Your task to perform on an android device: Go to Google maps Image 0: 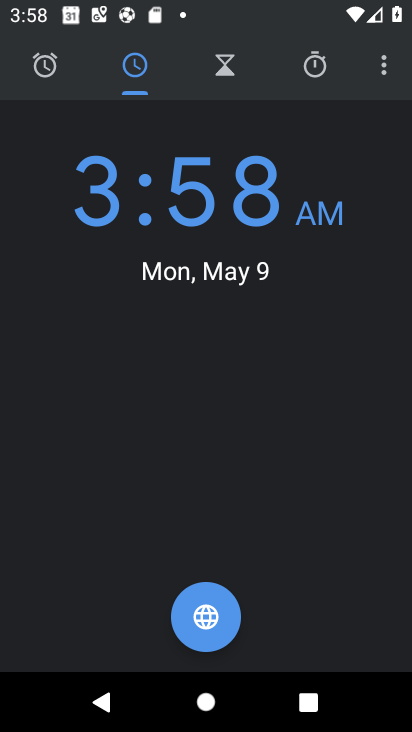
Step 0: drag from (311, 565) to (396, 513)
Your task to perform on an android device: Go to Google maps Image 1: 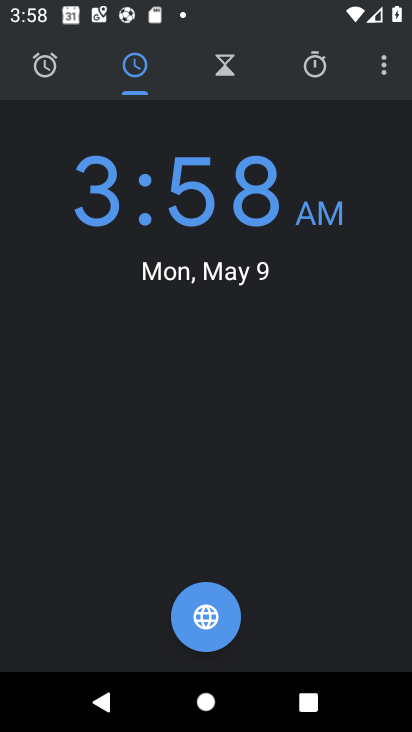
Step 1: press home button
Your task to perform on an android device: Go to Google maps Image 2: 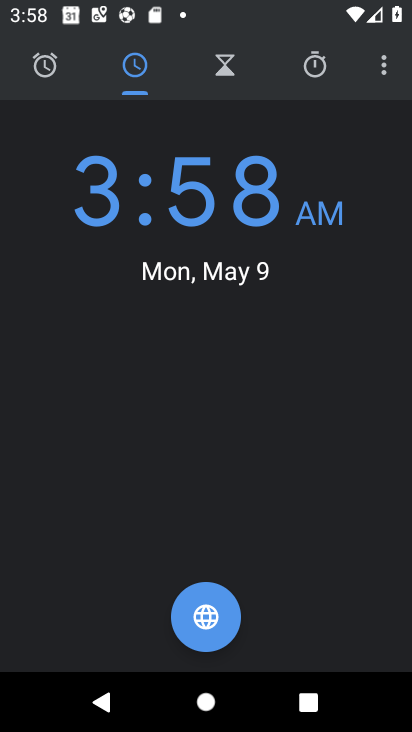
Step 2: click (396, 513)
Your task to perform on an android device: Go to Google maps Image 3: 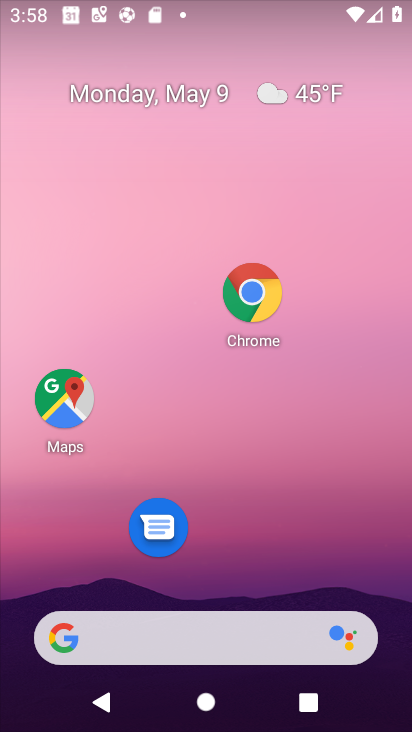
Step 3: click (89, 412)
Your task to perform on an android device: Go to Google maps Image 4: 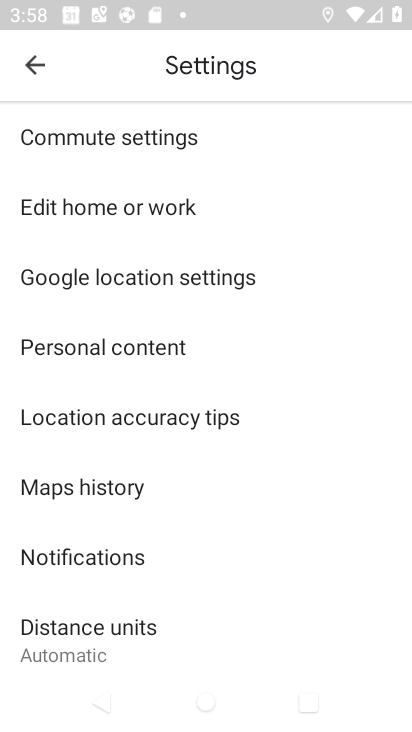
Step 4: press home button
Your task to perform on an android device: Go to Google maps Image 5: 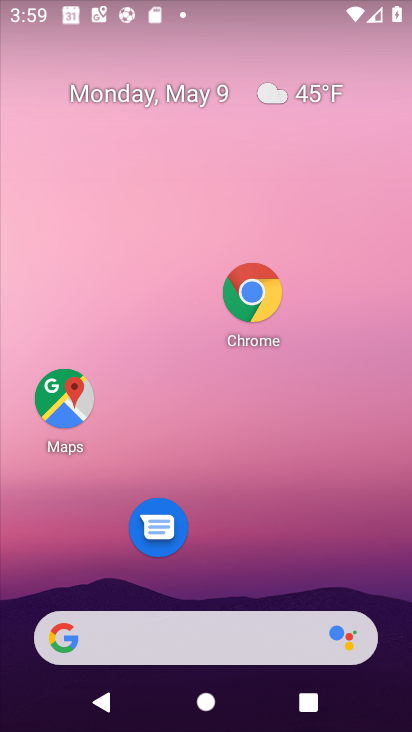
Step 5: click (51, 419)
Your task to perform on an android device: Go to Google maps Image 6: 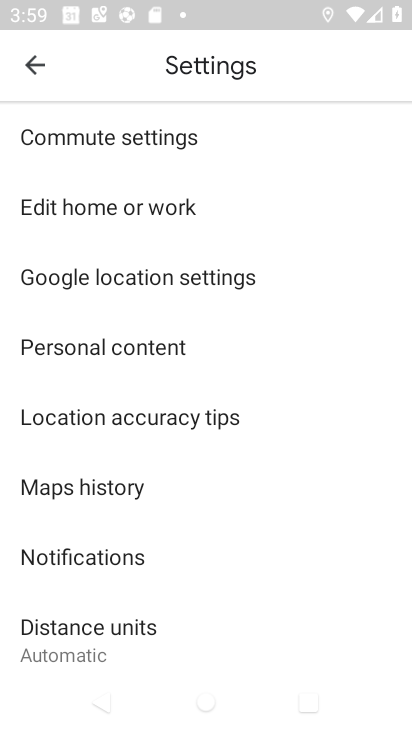
Step 6: press home button
Your task to perform on an android device: Go to Google maps Image 7: 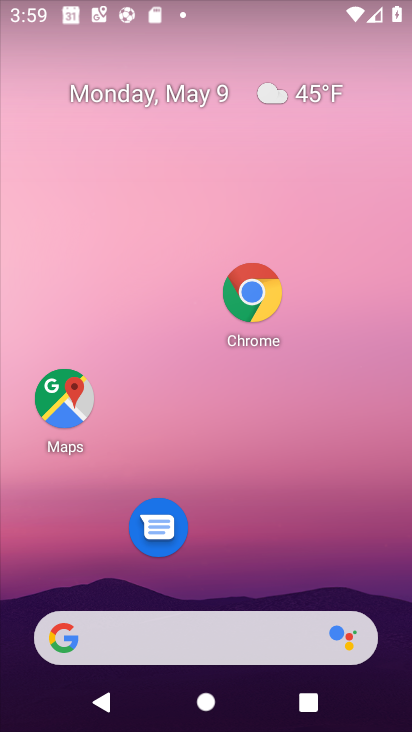
Step 7: click (63, 400)
Your task to perform on an android device: Go to Google maps Image 8: 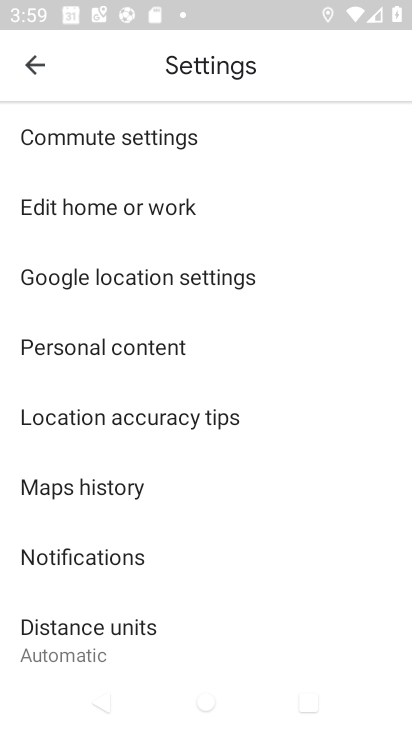
Step 8: click (28, 57)
Your task to perform on an android device: Go to Google maps Image 9: 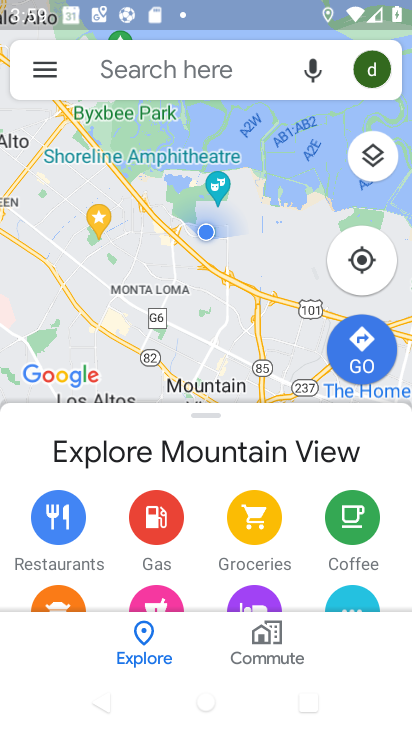
Step 9: task complete